Your task to perform on an android device: What's on my calendar today? Image 0: 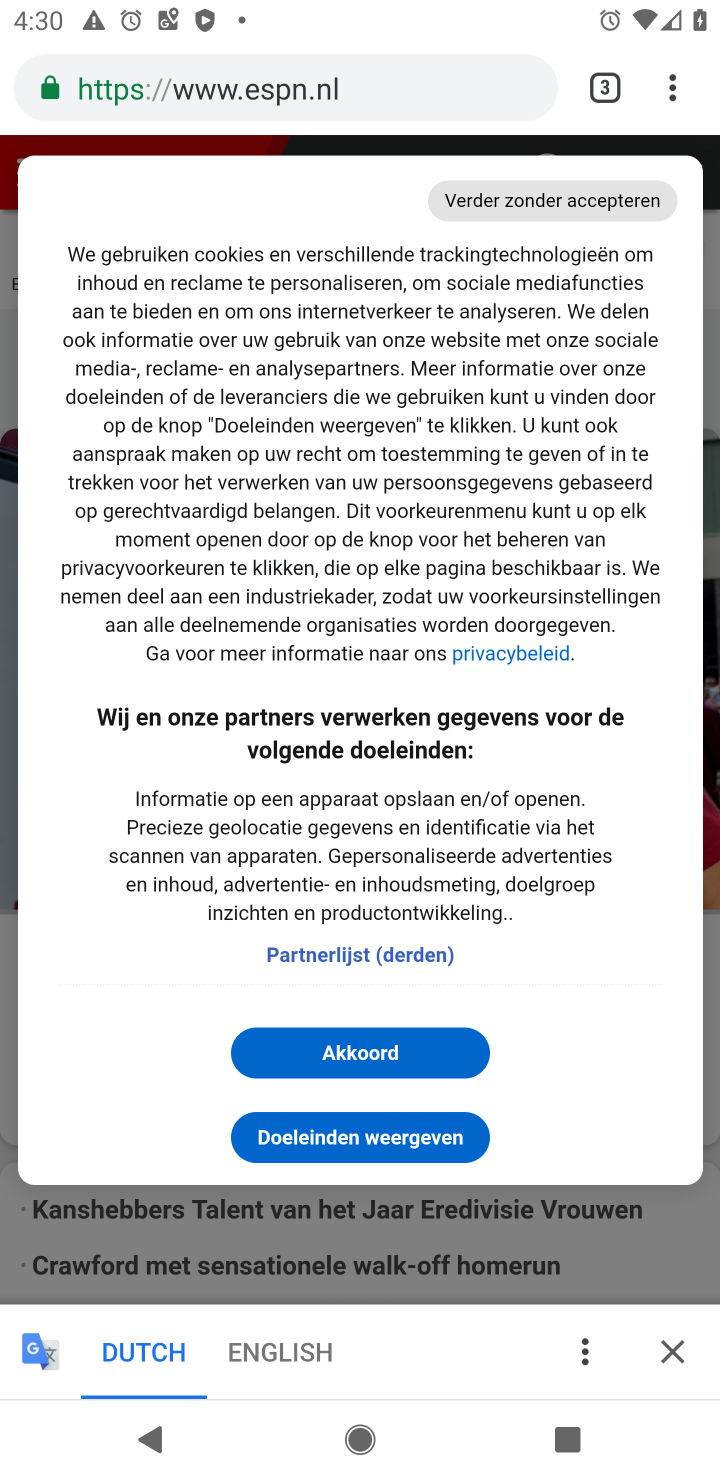
Step 0: press home button
Your task to perform on an android device: What's on my calendar today? Image 1: 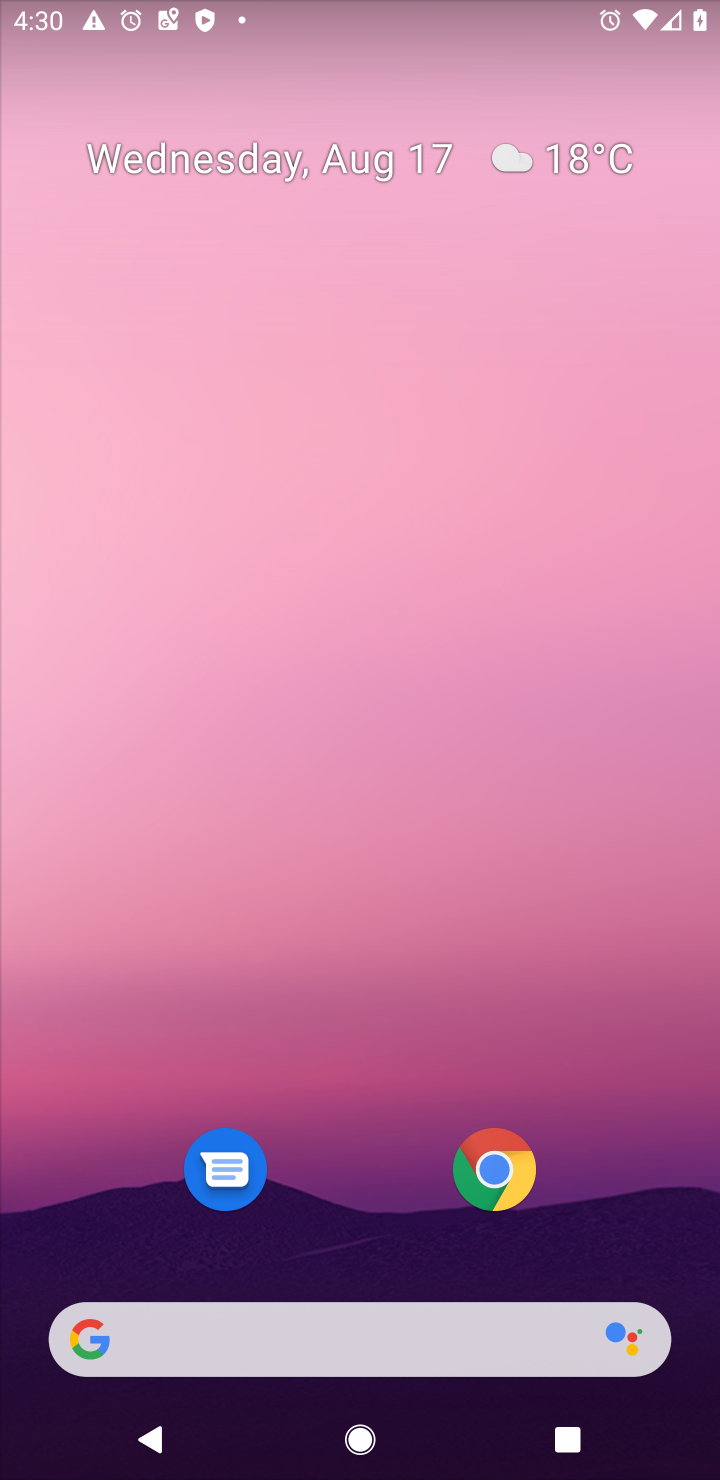
Step 1: drag from (281, 1261) to (465, 65)
Your task to perform on an android device: What's on my calendar today? Image 2: 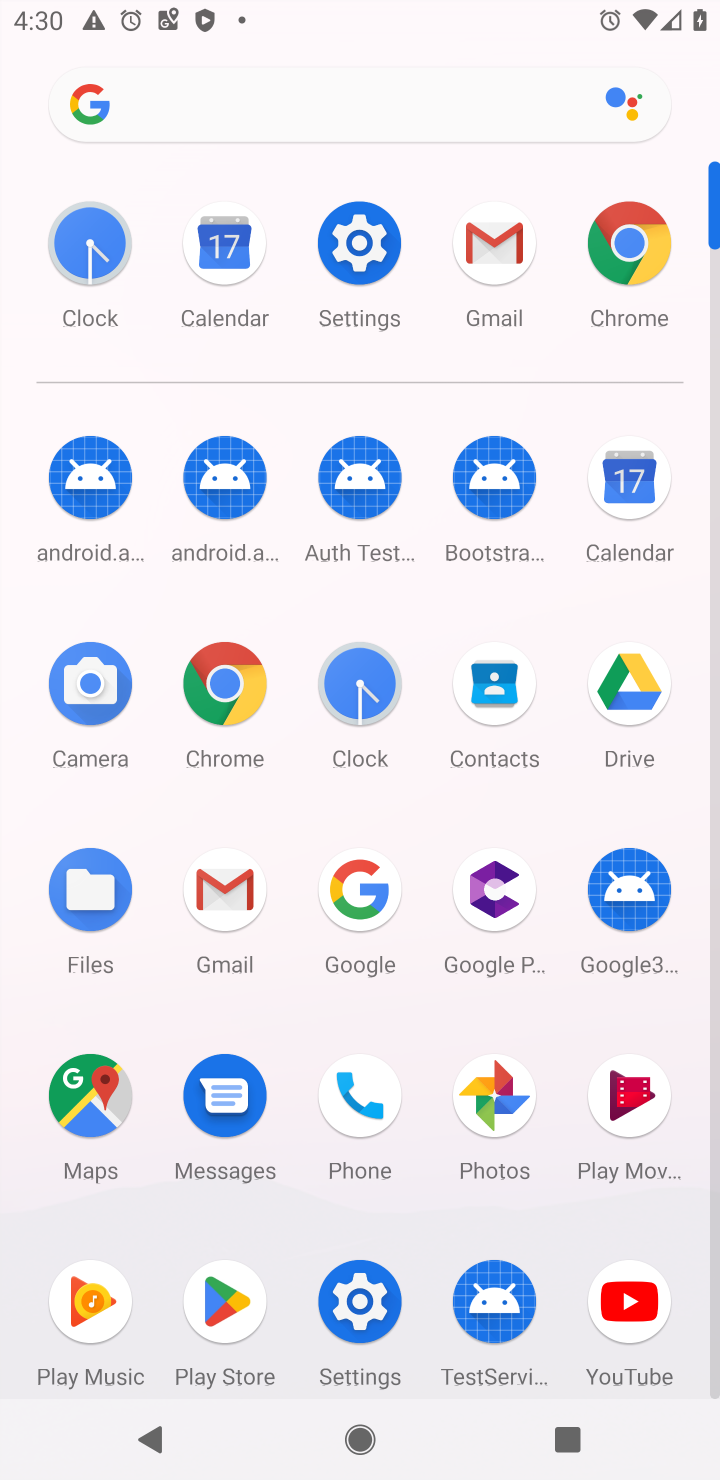
Step 2: click (638, 484)
Your task to perform on an android device: What's on my calendar today? Image 3: 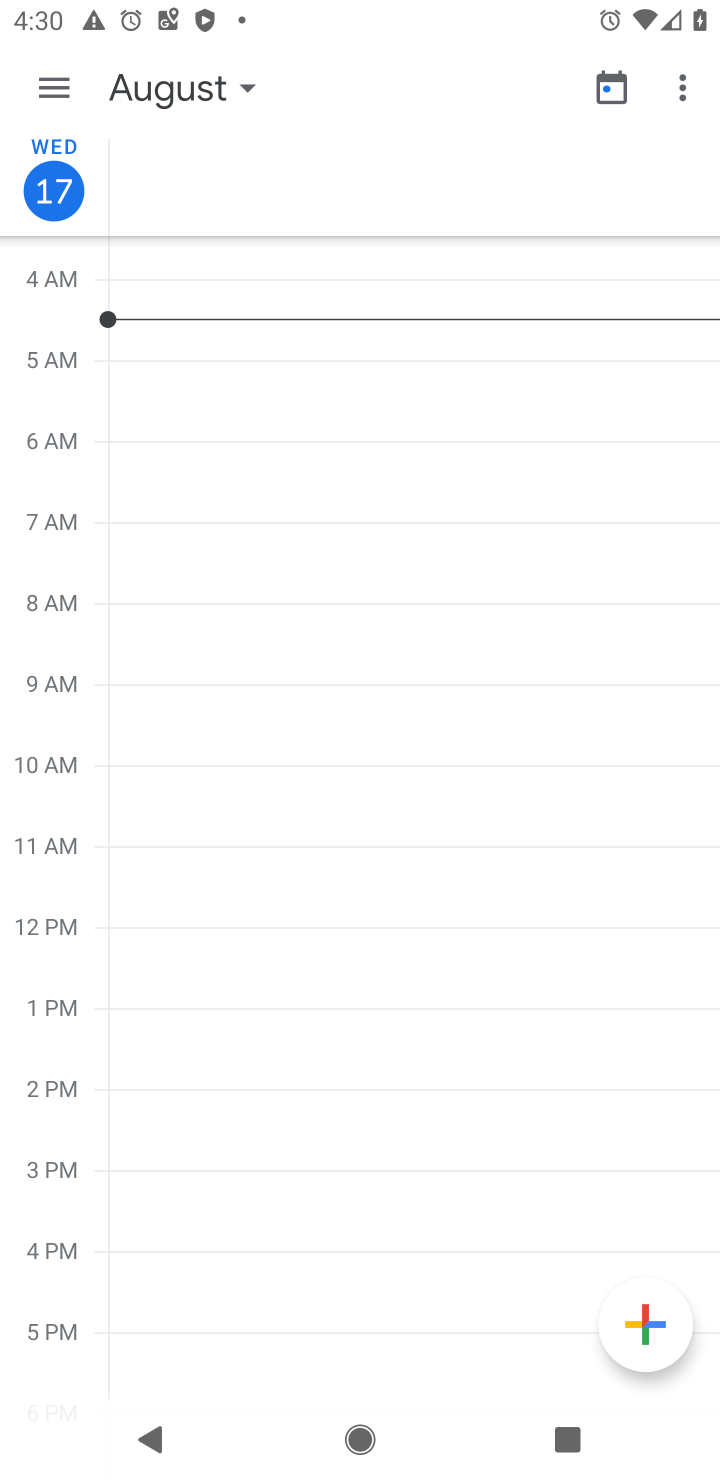
Step 3: click (46, 80)
Your task to perform on an android device: What's on my calendar today? Image 4: 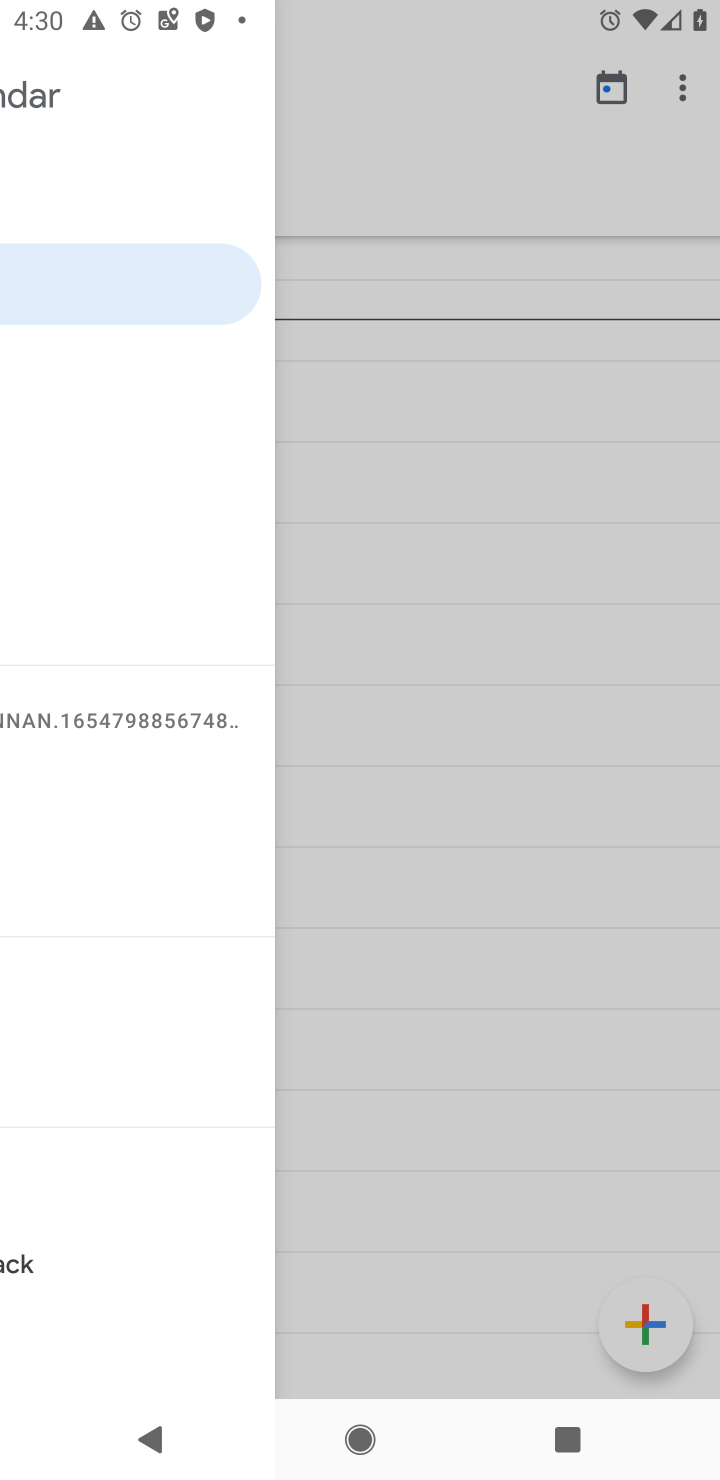
Step 4: click (146, 89)
Your task to perform on an android device: What's on my calendar today? Image 5: 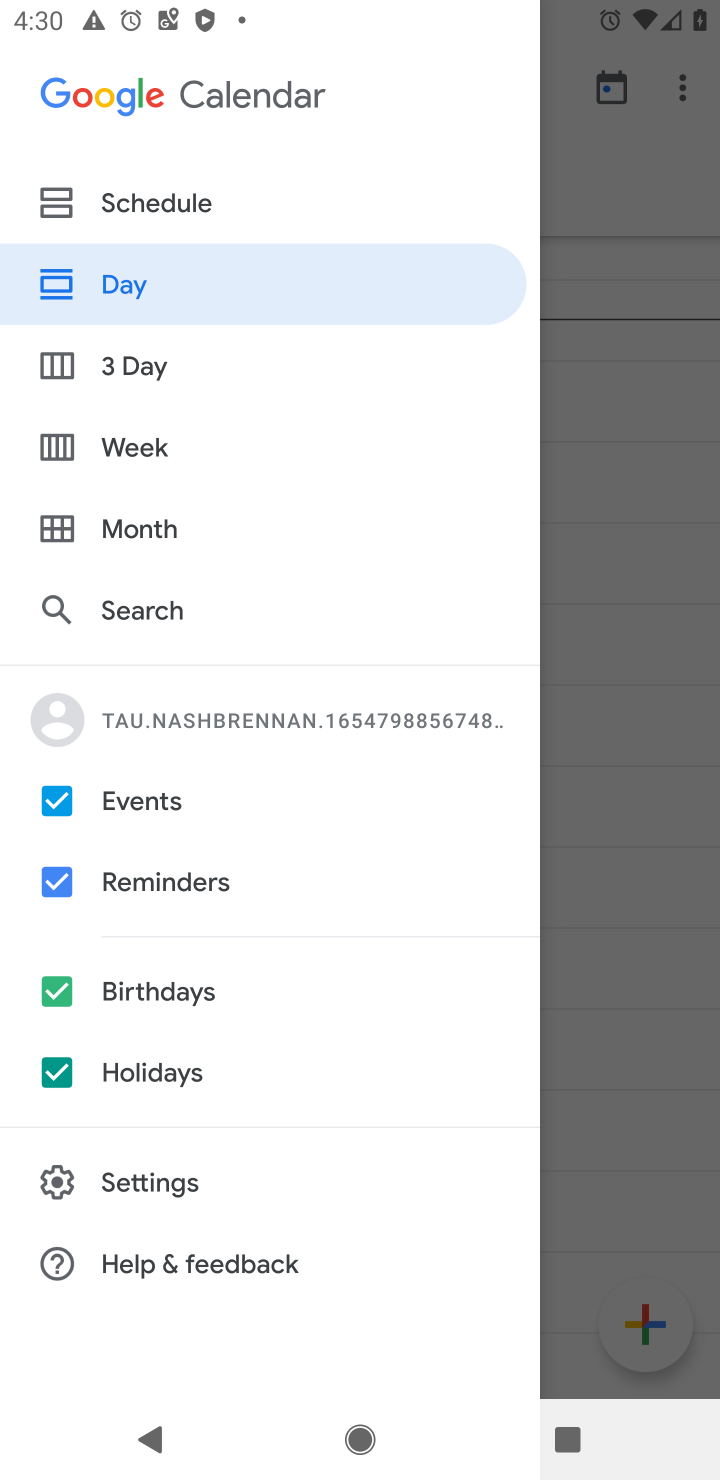
Step 5: click (177, 192)
Your task to perform on an android device: What's on my calendar today? Image 6: 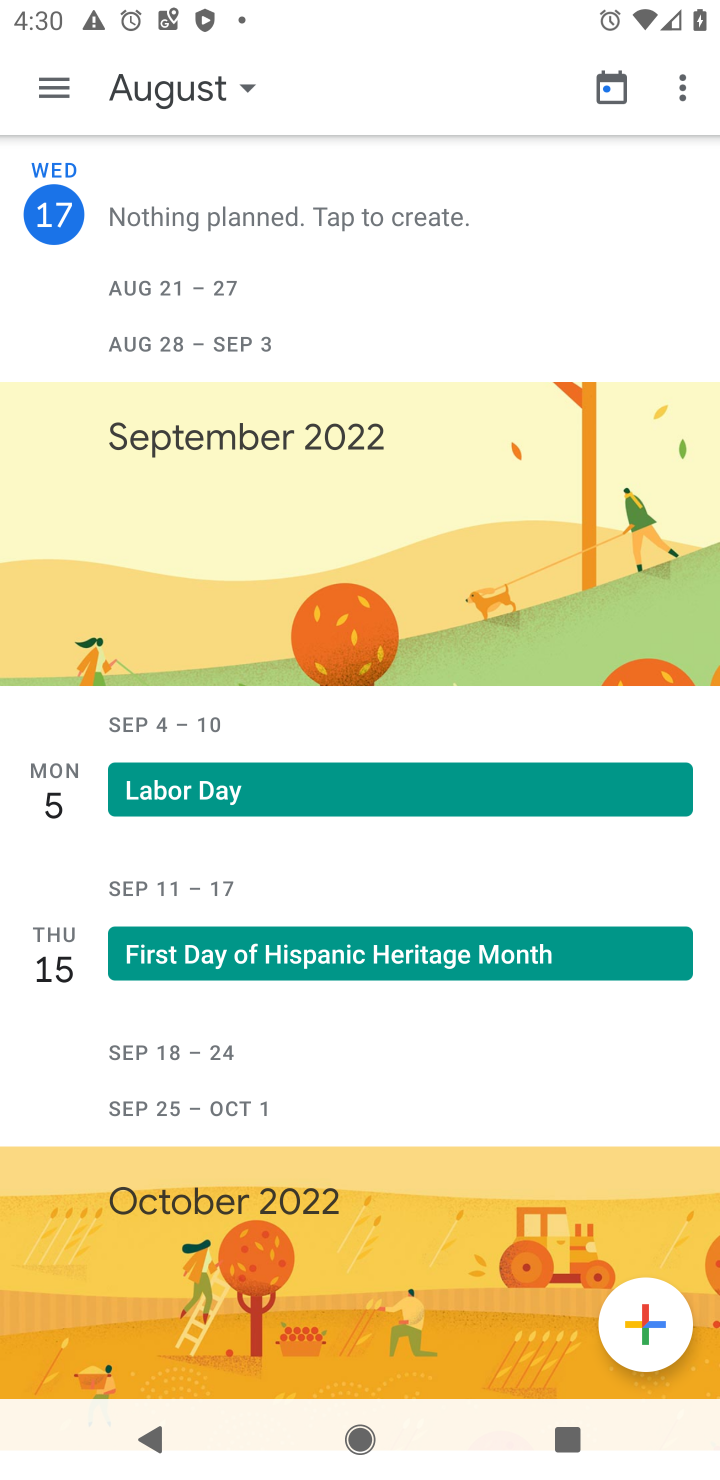
Step 6: click (169, 101)
Your task to perform on an android device: What's on my calendar today? Image 7: 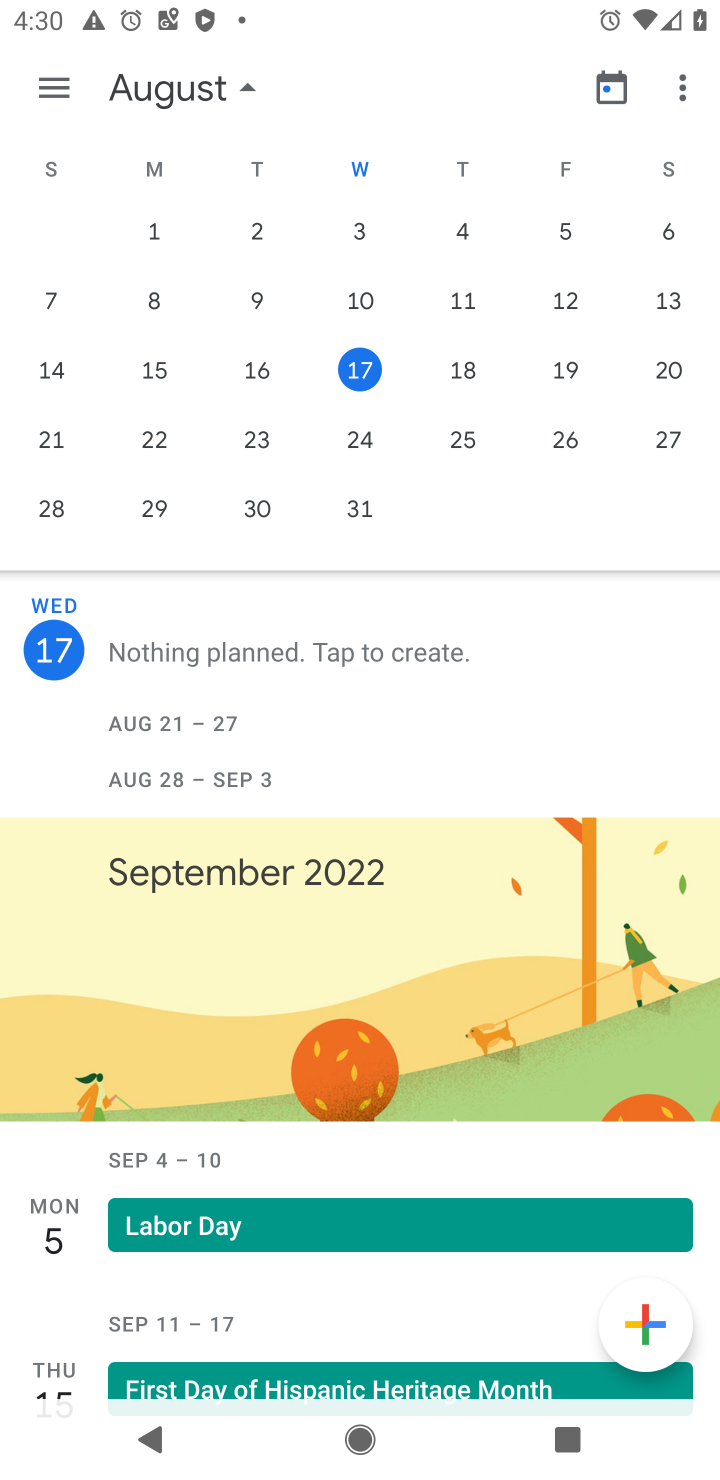
Step 7: click (355, 357)
Your task to perform on an android device: What's on my calendar today? Image 8: 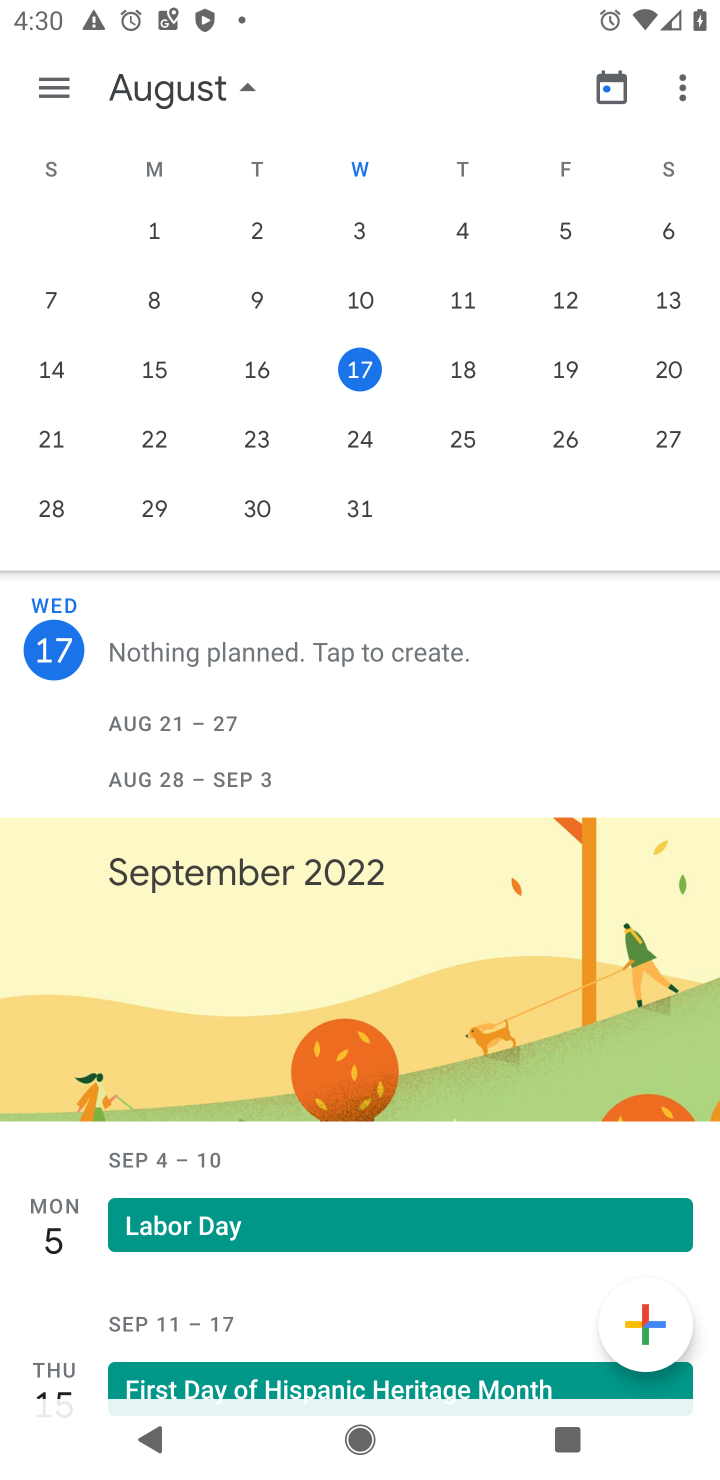
Step 8: task complete